Your task to perform on an android device: Open wifi settings Image 0: 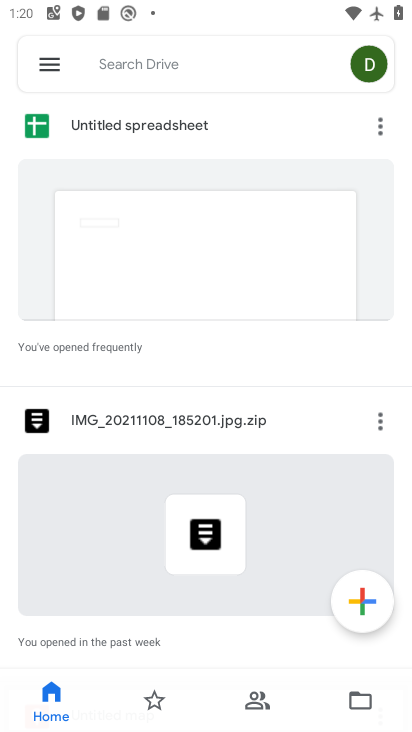
Step 0: press home button
Your task to perform on an android device: Open wifi settings Image 1: 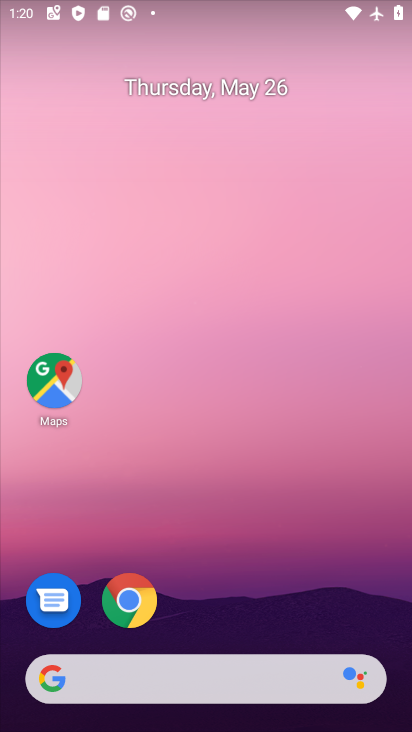
Step 1: drag from (238, 471) to (207, 21)
Your task to perform on an android device: Open wifi settings Image 2: 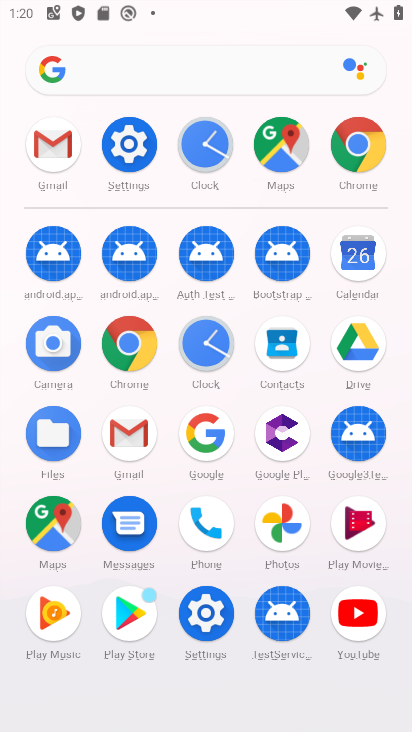
Step 2: click (140, 153)
Your task to perform on an android device: Open wifi settings Image 3: 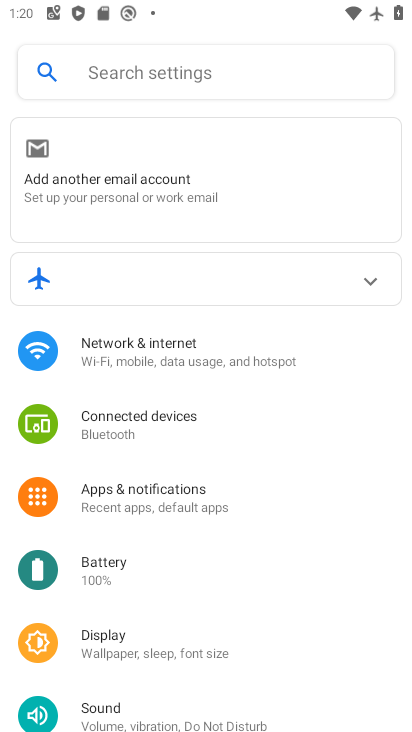
Step 3: click (174, 373)
Your task to perform on an android device: Open wifi settings Image 4: 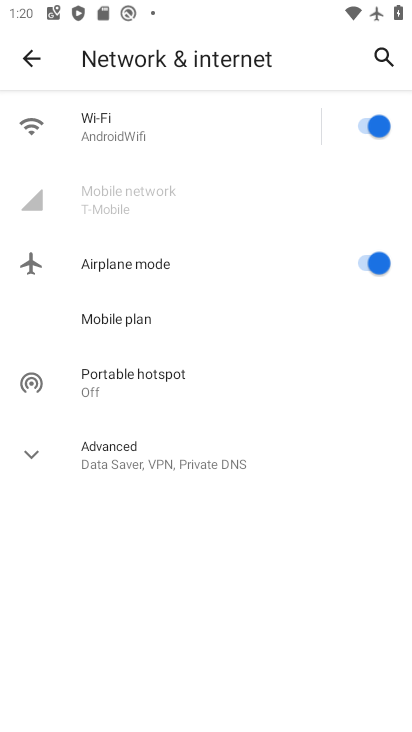
Step 4: click (195, 108)
Your task to perform on an android device: Open wifi settings Image 5: 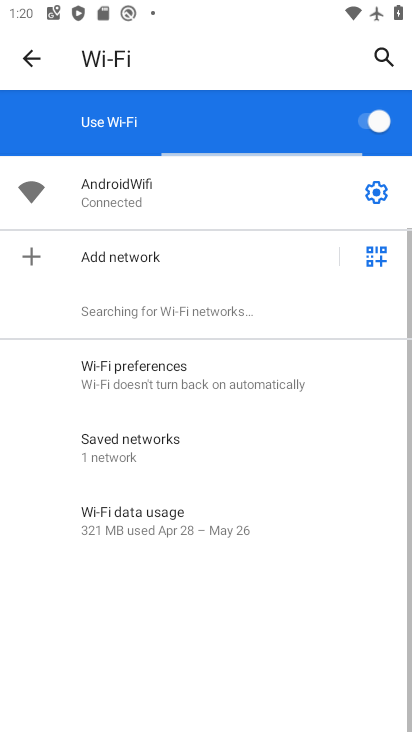
Step 5: click (374, 195)
Your task to perform on an android device: Open wifi settings Image 6: 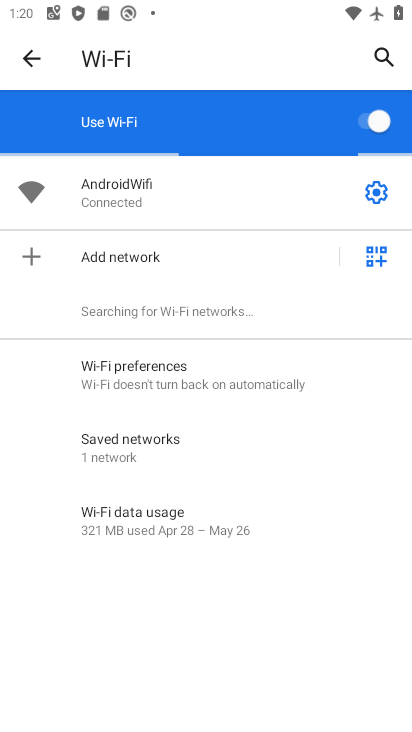
Step 6: click (373, 187)
Your task to perform on an android device: Open wifi settings Image 7: 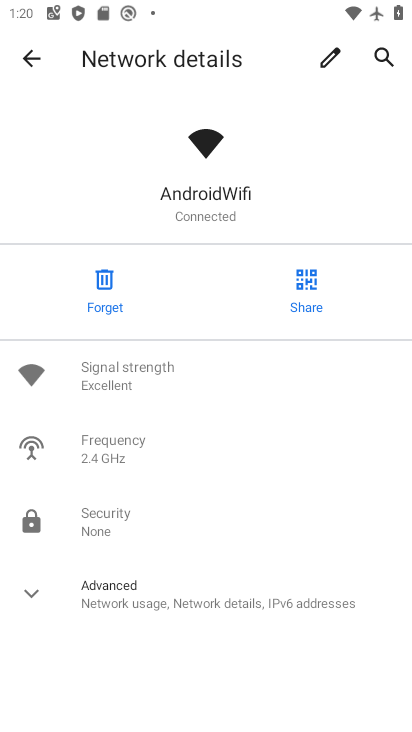
Step 7: task complete